Your task to perform on an android device: turn on the 24-hour format for clock Image 0: 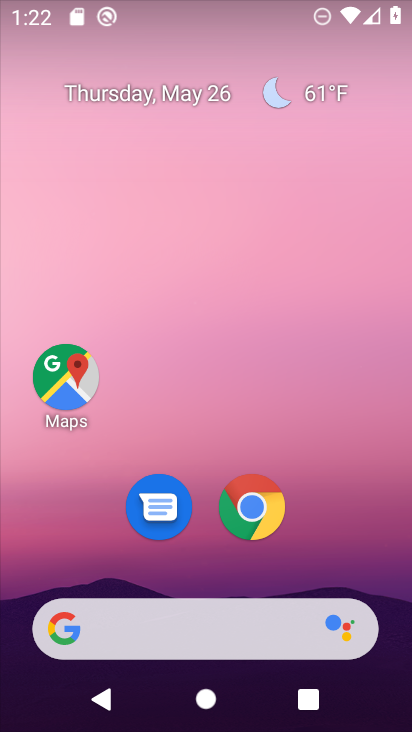
Step 0: drag from (340, 548) to (301, 15)
Your task to perform on an android device: turn on the 24-hour format for clock Image 1: 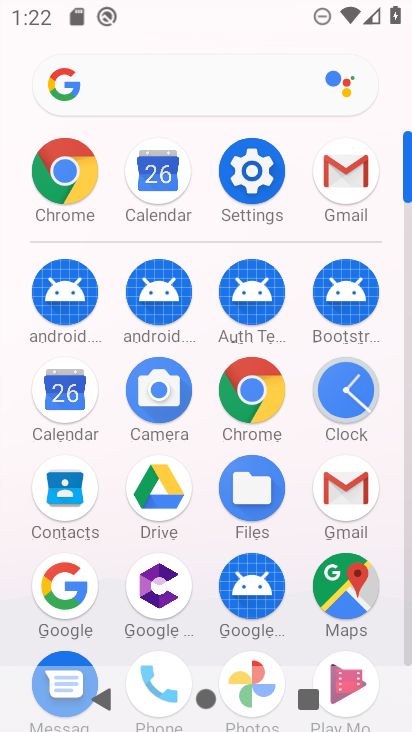
Step 1: click (351, 368)
Your task to perform on an android device: turn on the 24-hour format for clock Image 2: 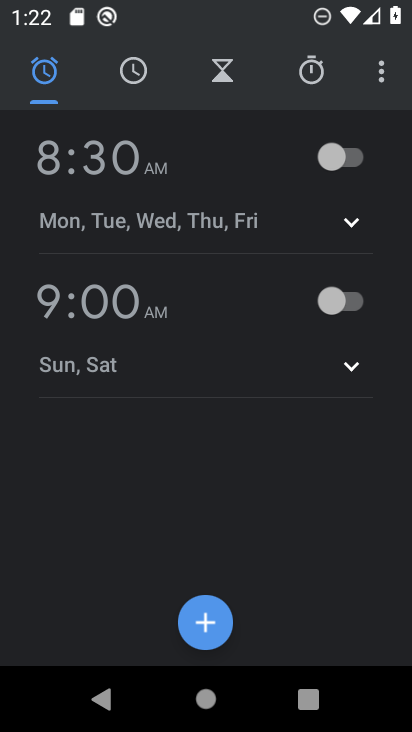
Step 2: click (386, 59)
Your task to perform on an android device: turn on the 24-hour format for clock Image 3: 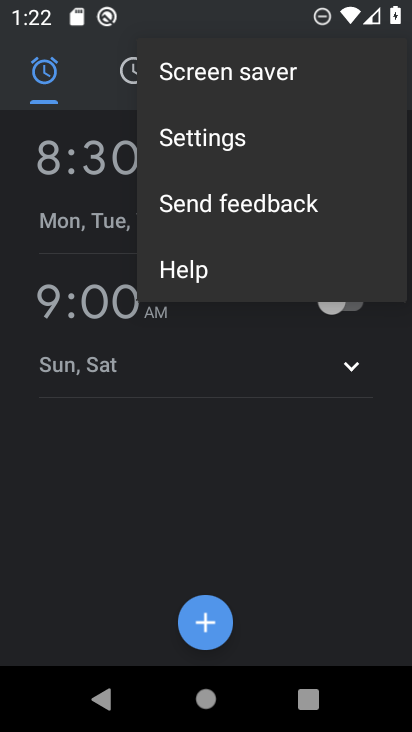
Step 3: click (268, 160)
Your task to perform on an android device: turn on the 24-hour format for clock Image 4: 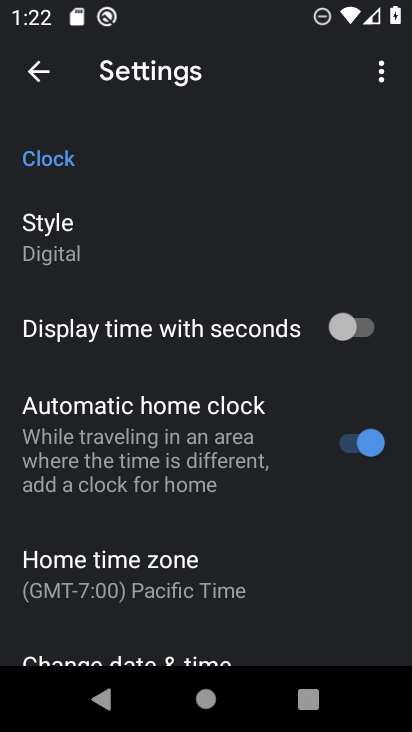
Step 4: drag from (176, 468) to (247, 192)
Your task to perform on an android device: turn on the 24-hour format for clock Image 5: 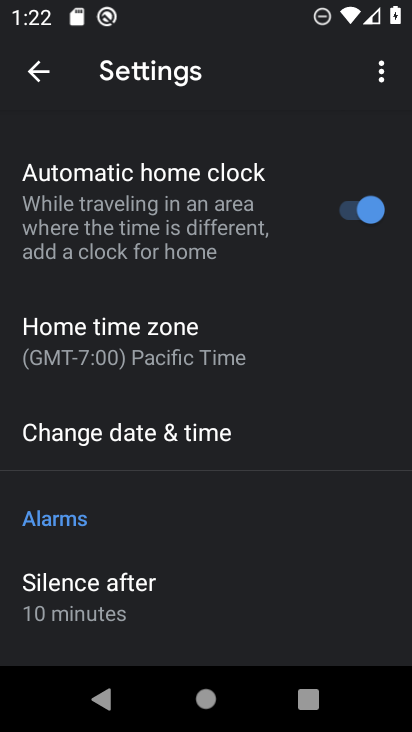
Step 5: click (186, 408)
Your task to perform on an android device: turn on the 24-hour format for clock Image 6: 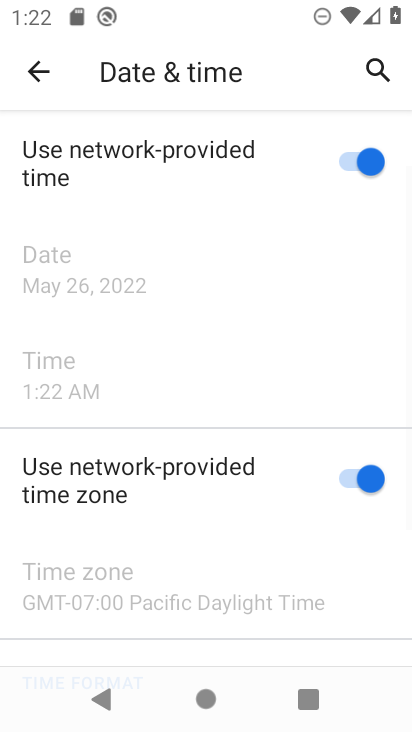
Step 6: drag from (113, 526) to (248, 120)
Your task to perform on an android device: turn on the 24-hour format for clock Image 7: 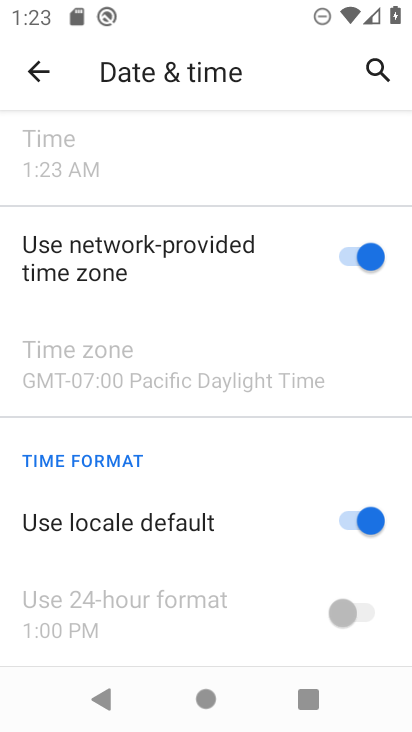
Step 7: click (366, 536)
Your task to perform on an android device: turn on the 24-hour format for clock Image 8: 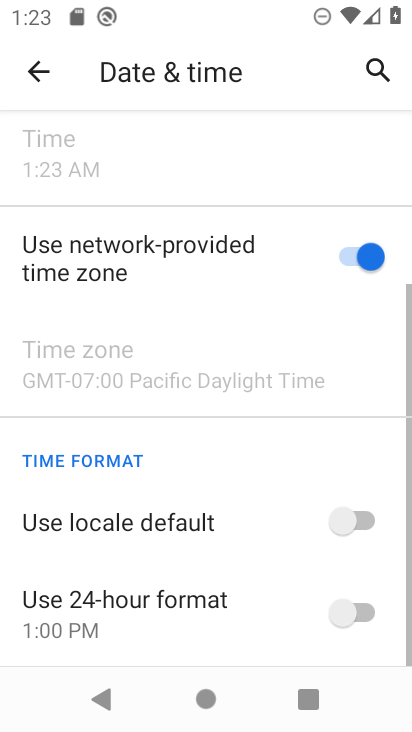
Step 8: click (347, 628)
Your task to perform on an android device: turn on the 24-hour format for clock Image 9: 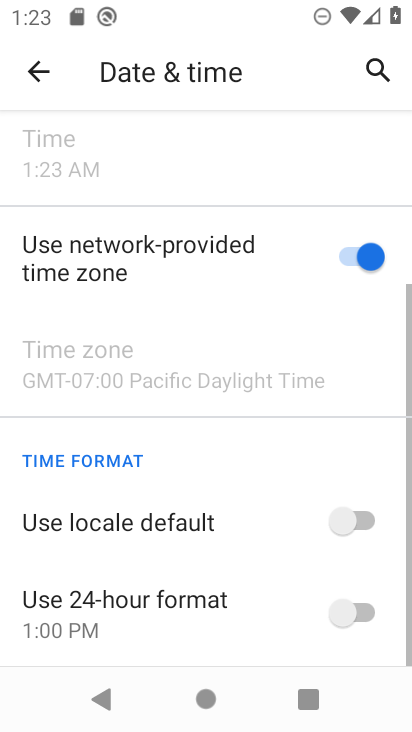
Step 9: click (347, 628)
Your task to perform on an android device: turn on the 24-hour format for clock Image 10: 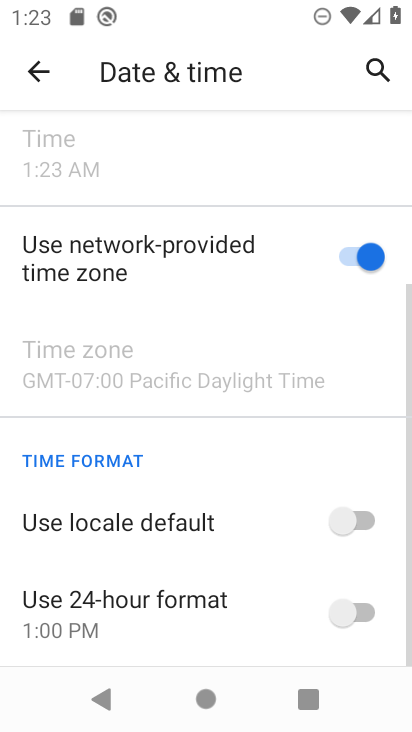
Step 10: click (339, 609)
Your task to perform on an android device: turn on the 24-hour format for clock Image 11: 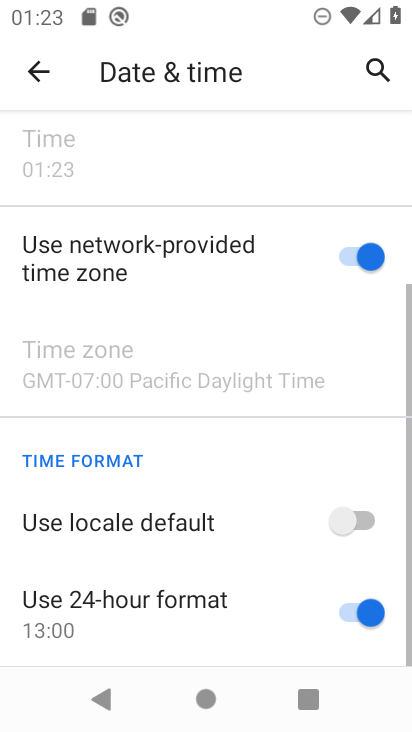
Step 11: task complete